Your task to perform on an android device: set the stopwatch Image 0: 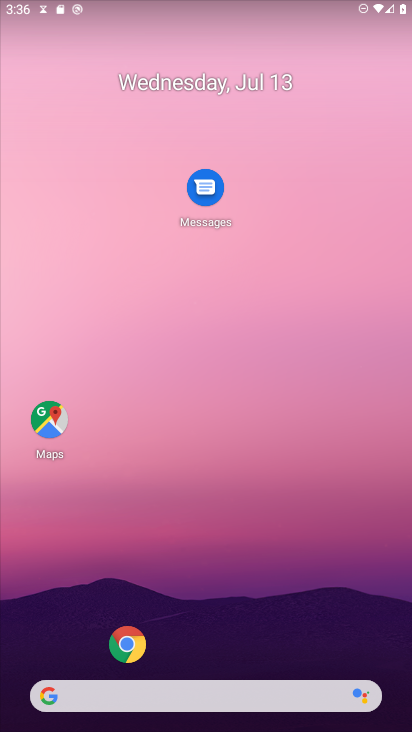
Step 0: click (56, 408)
Your task to perform on an android device: set the stopwatch Image 1: 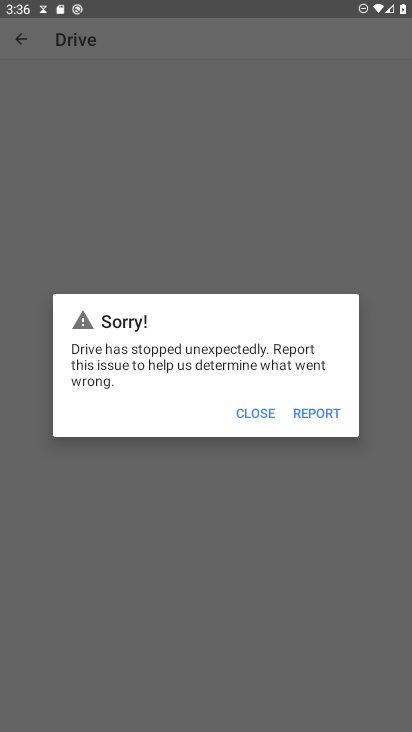
Step 1: press home button
Your task to perform on an android device: set the stopwatch Image 2: 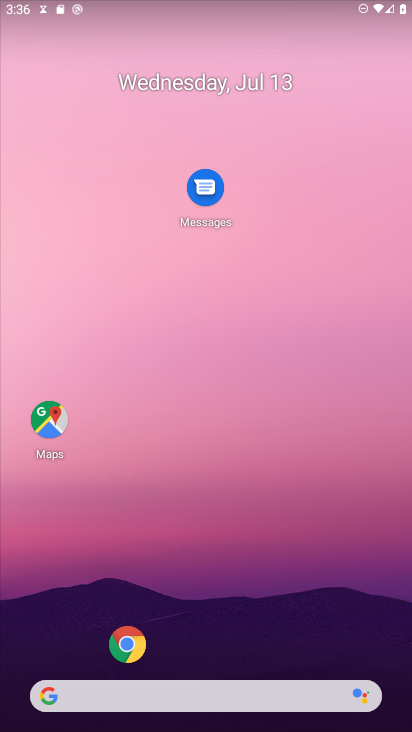
Step 2: drag from (69, 636) to (181, 224)
Your task to perform on an android device: set the stopwatch Image 3: 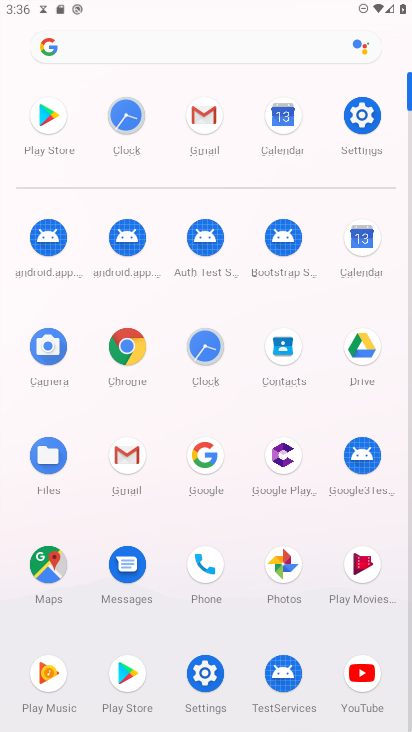
Step 3: click (207, 366)
Your task to perform on an android device: set the stopwatch Image 4: 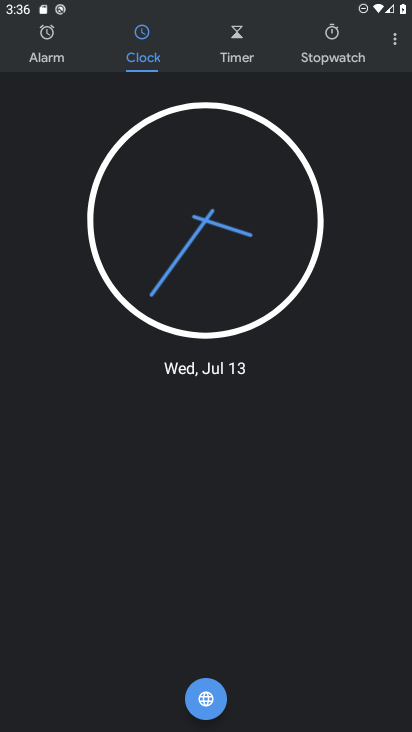
Step 4: click (211, 353)
Your task to perform on an android device: set the stopwatch Image 5: 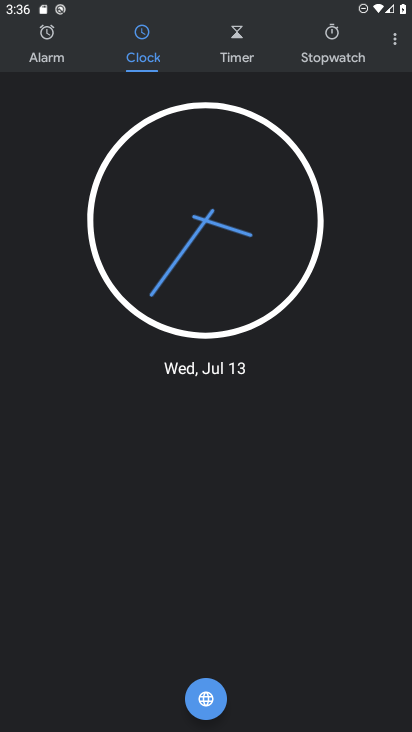
Step 5: click (344, 35)
Your task to perform on an android device: set the stopwatch Image 6: 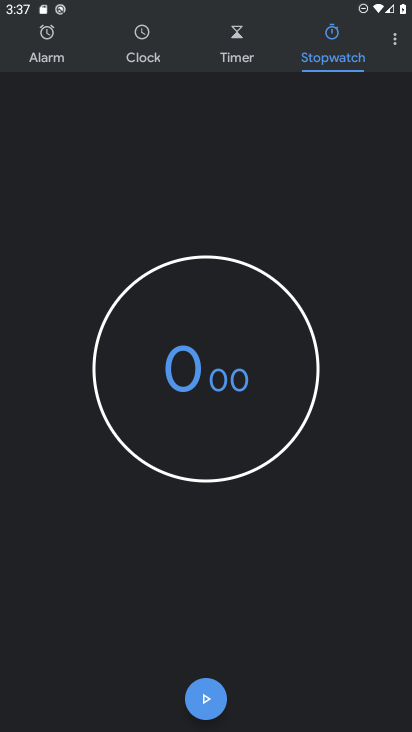
Step 6: click (220, 699)
Your task to perform on an android device: set the stopwatch Image 7: 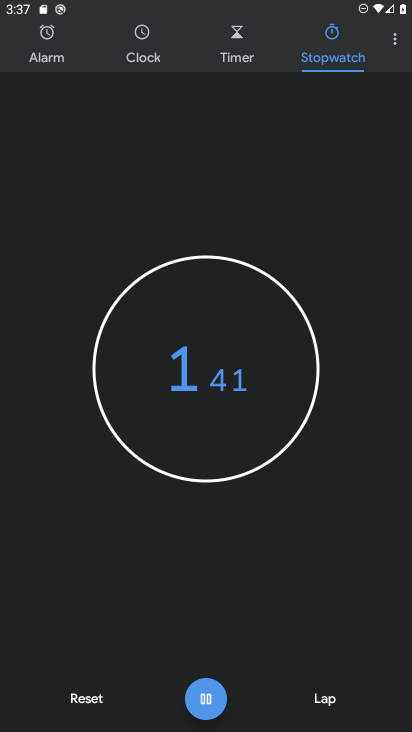
Step 7: click (205, 712)
Your task to perform on an android device: set the stopwatch Image 8: 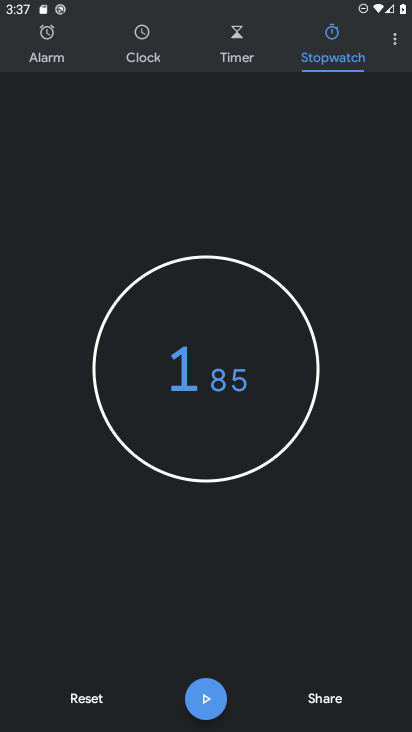
Step 8: click (205, 703)
Your task to perform on an android device: set the stopwatch Image 9: 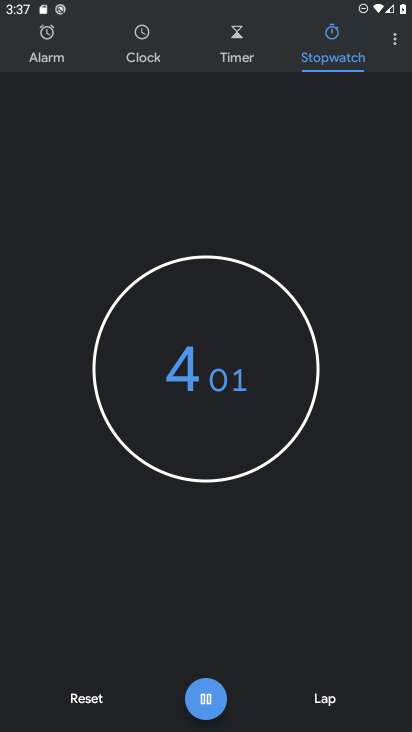
Step 9: click (190, 355)
Your task to perform on an android device: set the stopwatch Image 10: 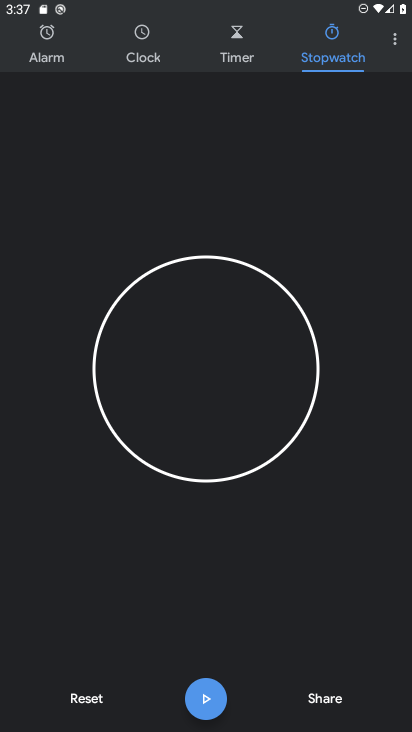
Step 10: task complete